Your task to perform on an android device: change your default location settings in chrome Image 0: 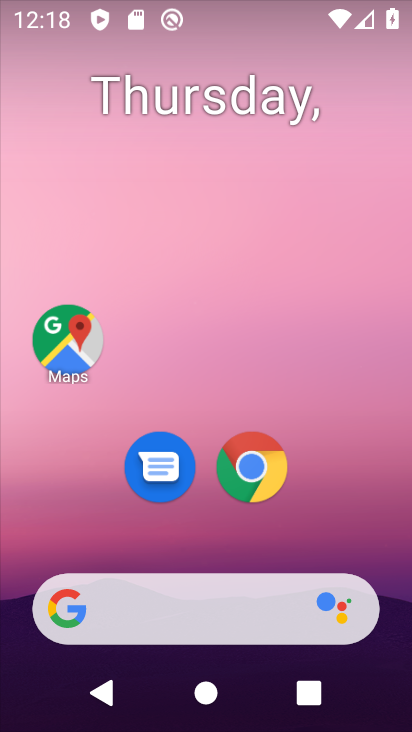
Step 0: click (248, 460)
Your task to perform on an android device: change your default location settings in chrome Image 1: 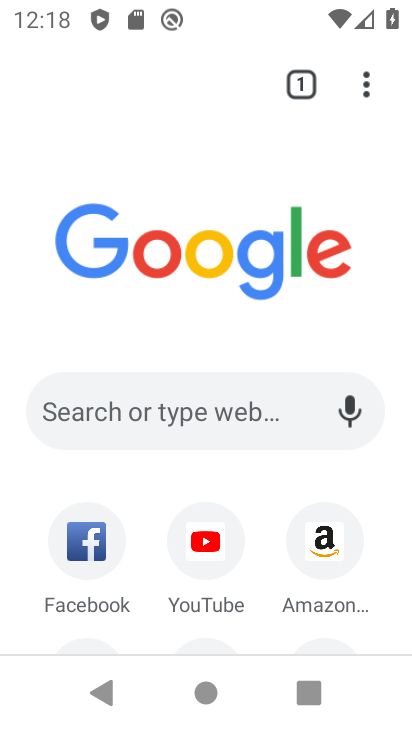
Step 1: click (369, 82)
Your task to perform on an android device: change your default location settings in chrome Image 2: 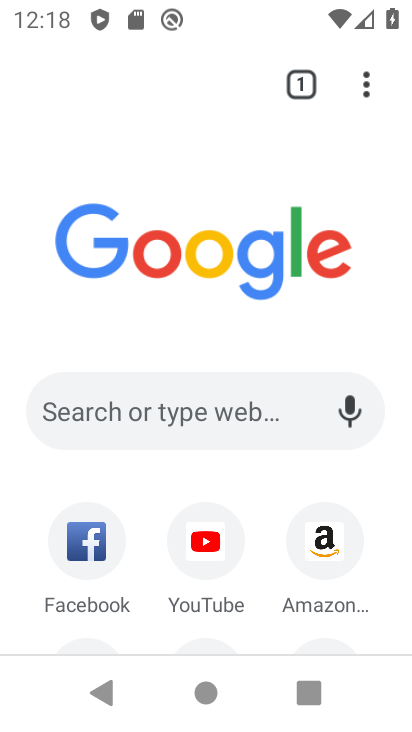
Step 2: click (368, 74)
Your task to perform on an android device: change your default location settings in chrome Image 3: 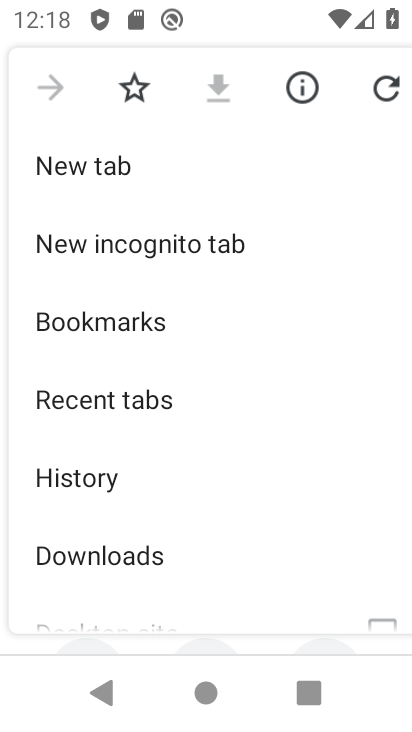
Step 3: drag from (248, 572) to (263, 254)
Your task to perform on an android device: change your default location settings in chrome Image 4: 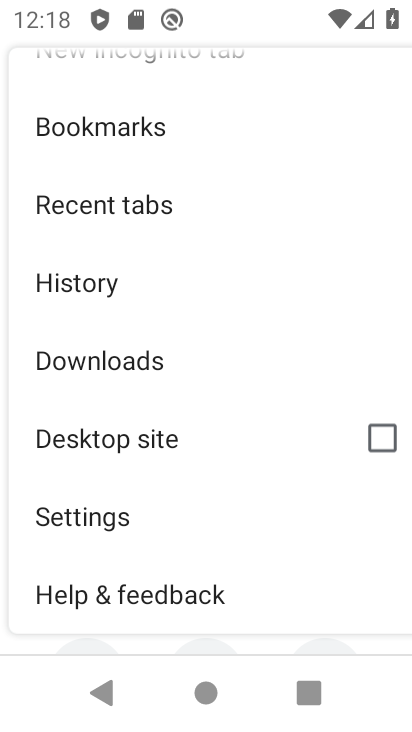
Step 4: drag from (255, 592) to (286, 379)
Your task to perform on an android device: change your default location settings in chrome Image 5: 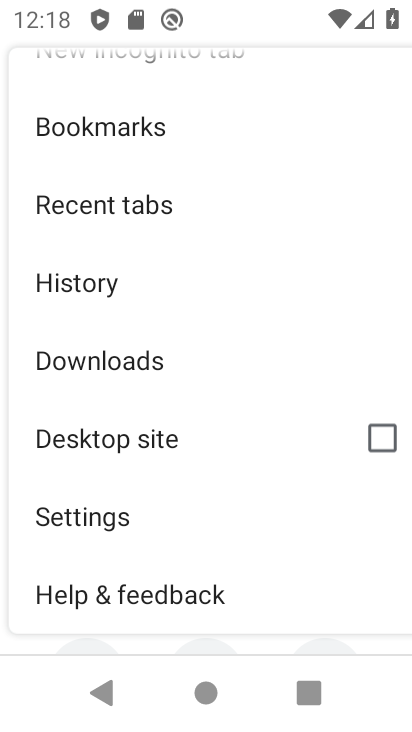
Step 5: drag from (267, 542) to (322, 287)
Your task to perform on an android device: change your default location settings in chrome Image 6: 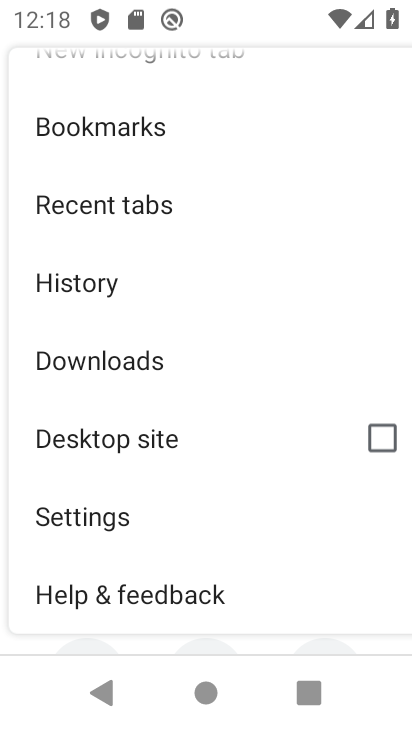
Step 6: click (75, 518)
Your task to perform on an android device: change your default location settings in chrome Image 7: 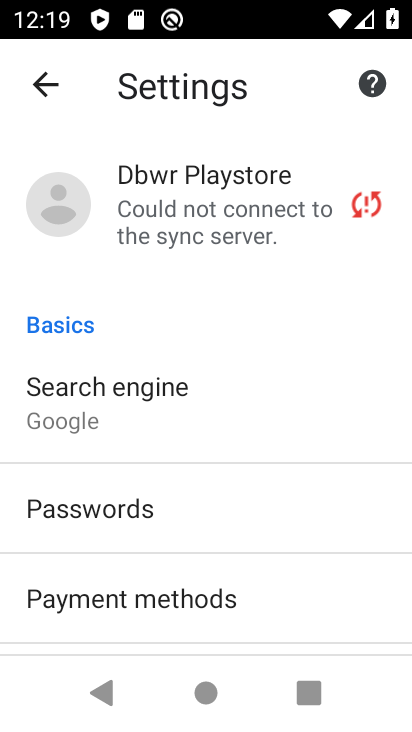
Step 7: drag from (290, 625) to (290, 409)
Your task to perform on an android device: change your default location settings in chrome Image 8: 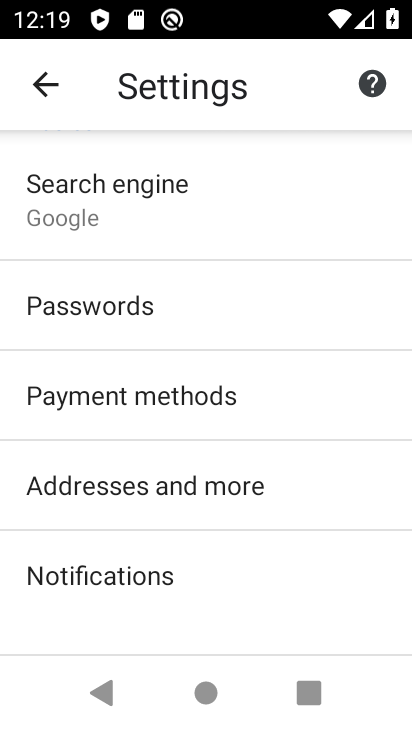
Step 8: drag from (285, 511) to (304, 377)
Your task to perform on an android device: change your default location settings in chrome Image 9: 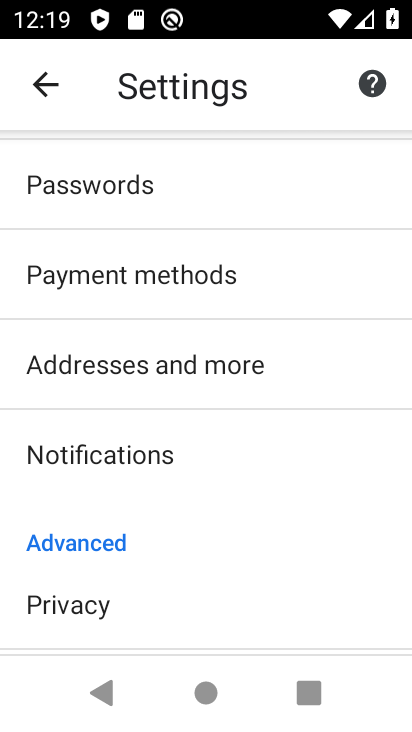
Step 9: drag from (158, 610) to (193, 291)
Your task to perform on an android device: change your default location settings in chrome Image 10: 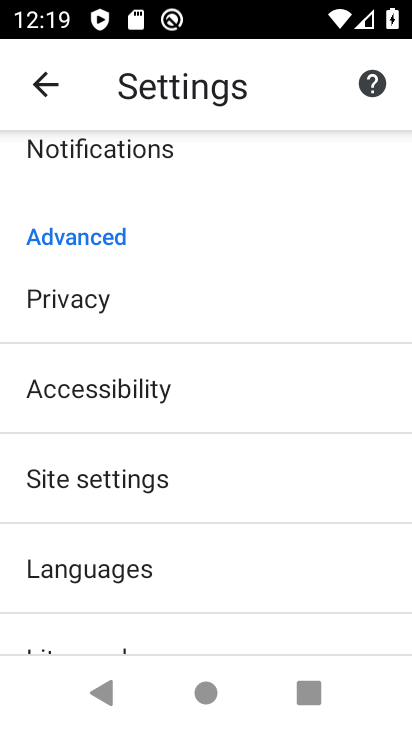
Step 10: click (93, 482)
Your task to perform on an android device: change your default location settings in chrome Image 11: 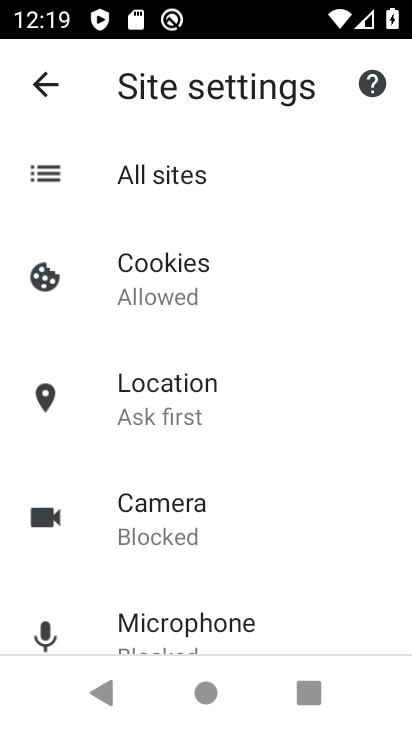
Step 11: drag from (273, 588) to (257, 385)
Your task to perform on an android device: change your default location settings in chrome Image 12: 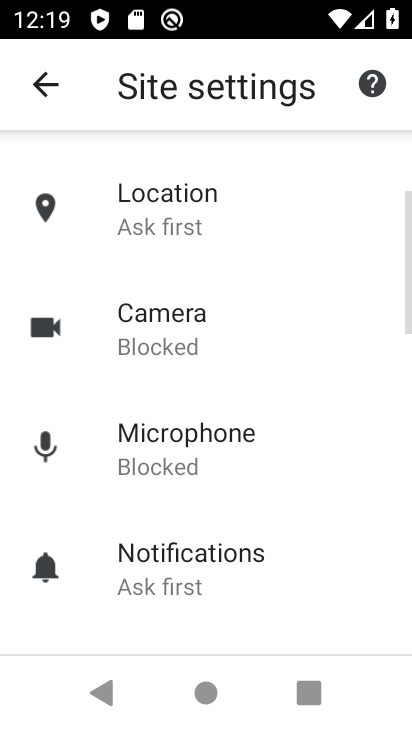
Step 12: click (160, 185)
Your task to perform on an android device: change your default location settings in chrome Image 13: 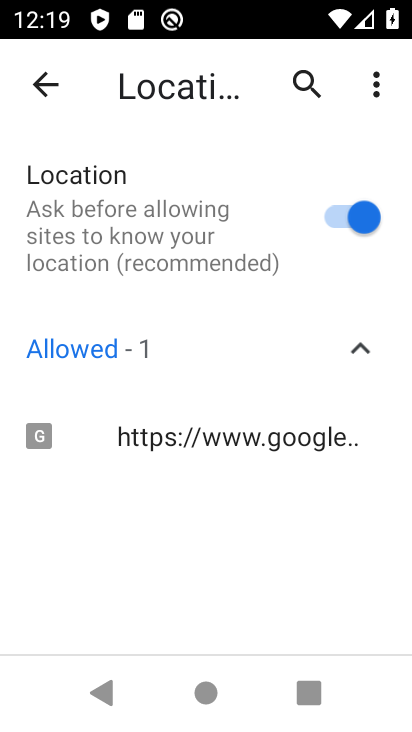
Step 13: task complete